Your task to perform on an android device: Search for pizza restaurants on Maps Image 0: 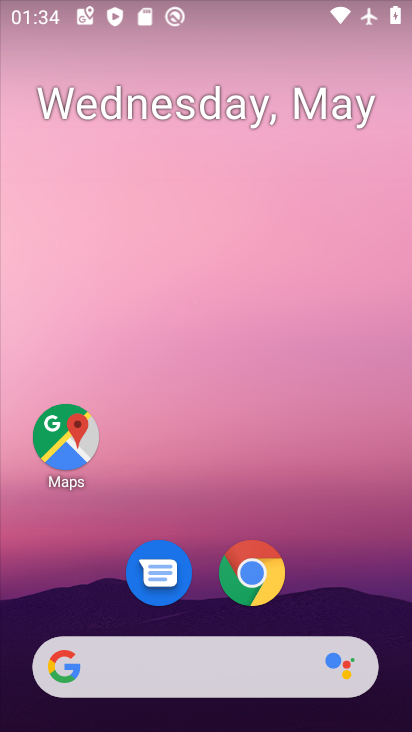
Step 0: drag from (300, 590) to (293, 277)
Your task to perform on an android device: Search for pizza restaurants on Maps Image 1: 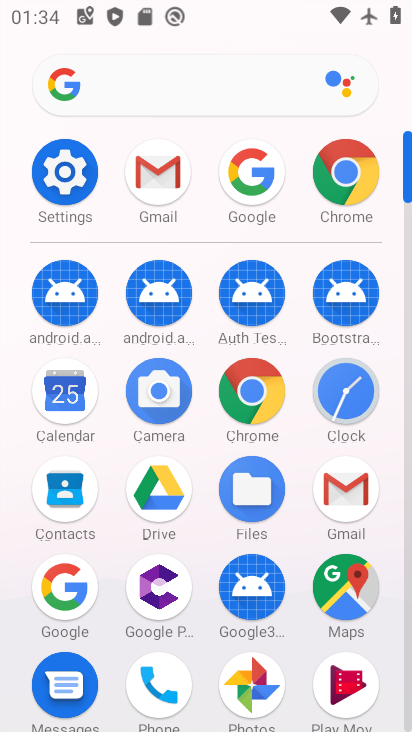
Step 1: click (339, 580)
Your task to perform on an android device: Search for pizza restaurants on Maps Image 2: 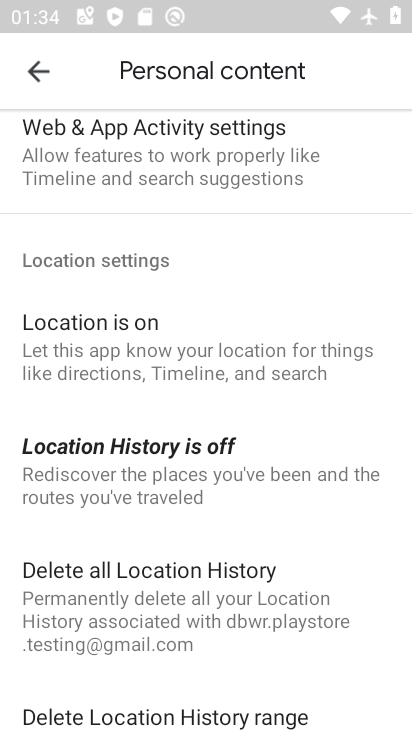
Step 2: click (28, 72)
Your task to perform on an android device: Search for pizza restaurants on Maps Image 3: 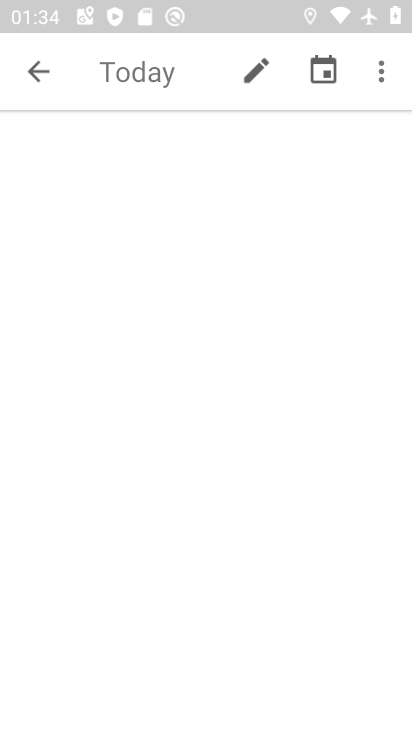
Step 3: click (28, 69)
Your task to perform on an android device: Search for pizza restaurants on Maps Image 4: 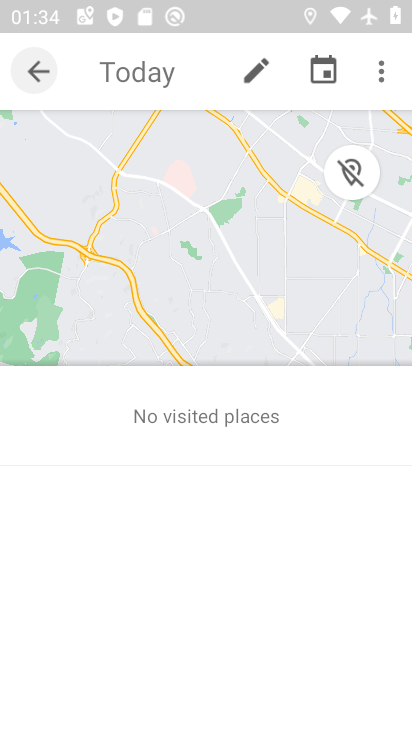
Step 4: click (28, 69)
Your task to perform on an android device: Search for pizza restaurants on Maps Image 5: 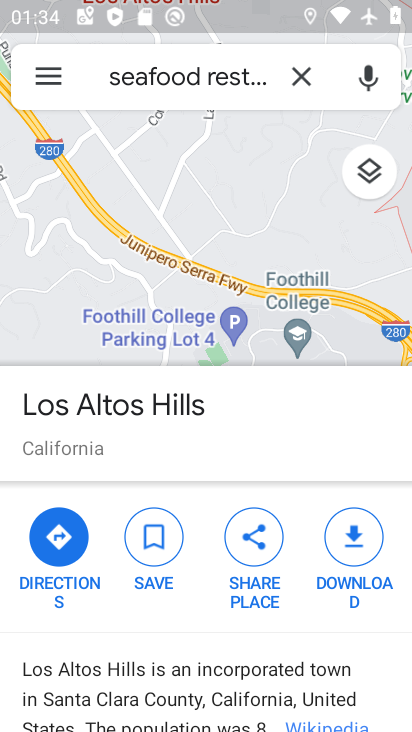
Step 5: click (42, 61)
Your task to perform on an android device: Search for pizza restaurants on Maps Image 6: 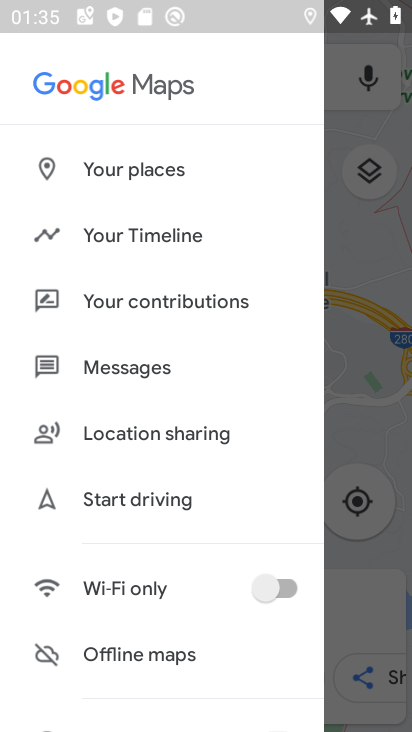
Step 6: click (333, 99)
Your task to perform on an android device: Search for pizza restaurants on Maps Image 7: 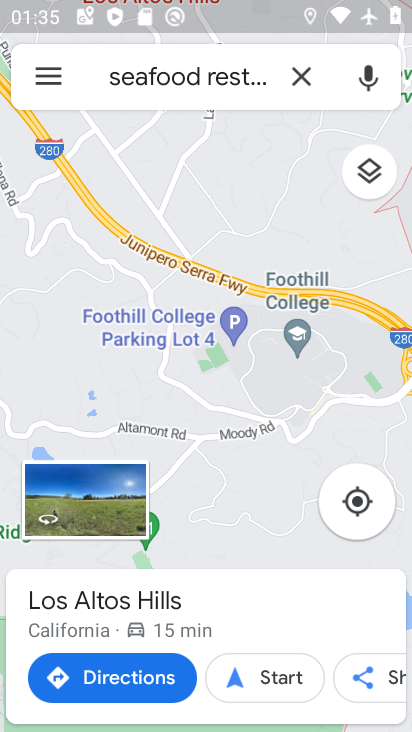
Step 7: click (301, 75)
Your task to perform on an android device: Search for pizza restaurants on Maps Image 8: 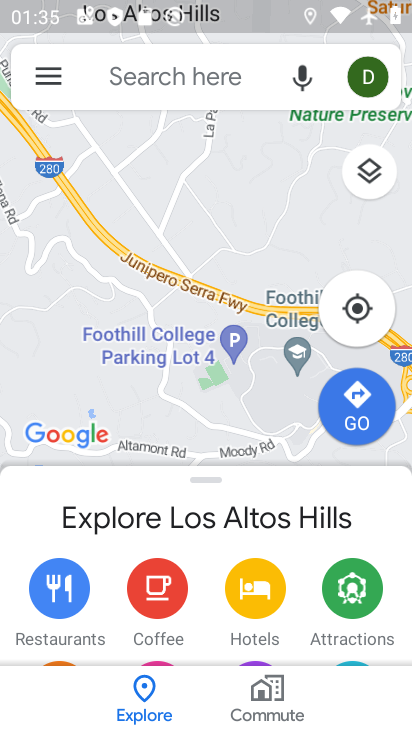
Step 8: click (205, 71)
Your task to perform on an android device: Search for pizza restaurants on Maps Image 9: 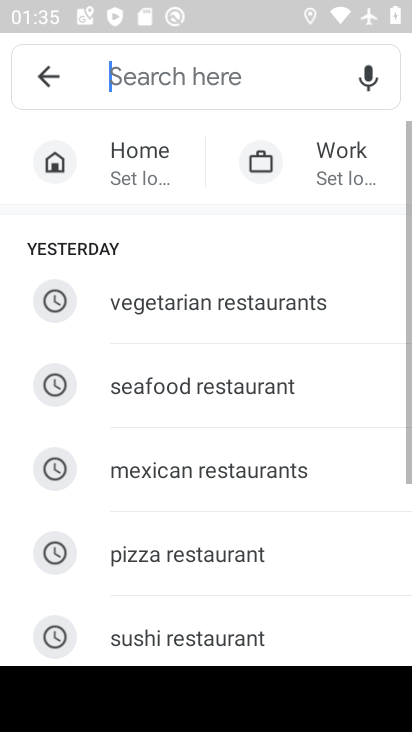
Step 9: type " pizza restaurants "
Your task to perform on an android device: Search for pizza restaurants on Maps Image 10: 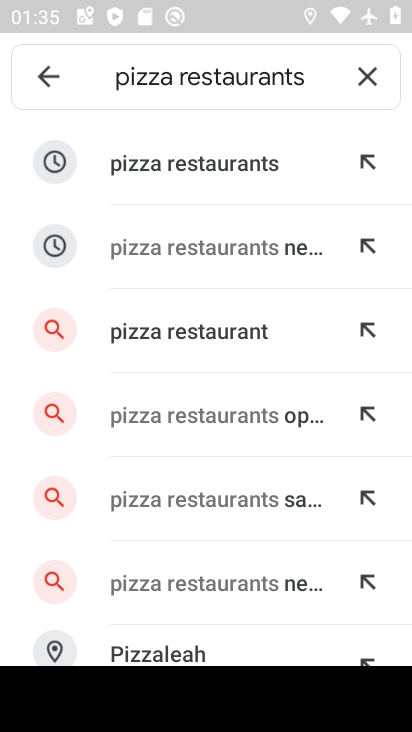
Step 10: click (160, 170)
Your task to perform on an android device: Search for pizza restaurants on Maps Image 11: 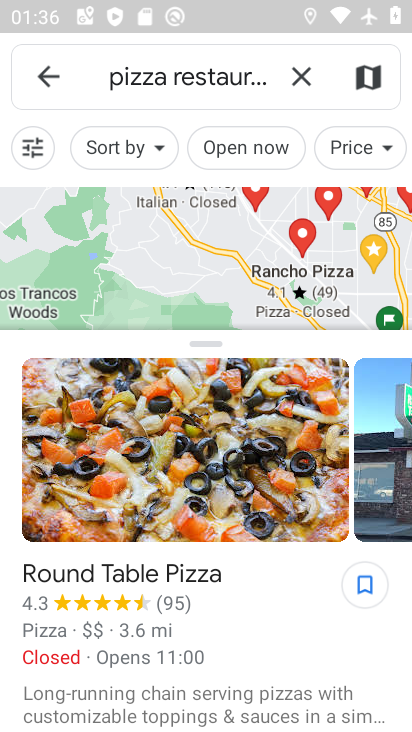
Step 11: task complete